Your task to perform on an android device: Go to network settings Image 0: 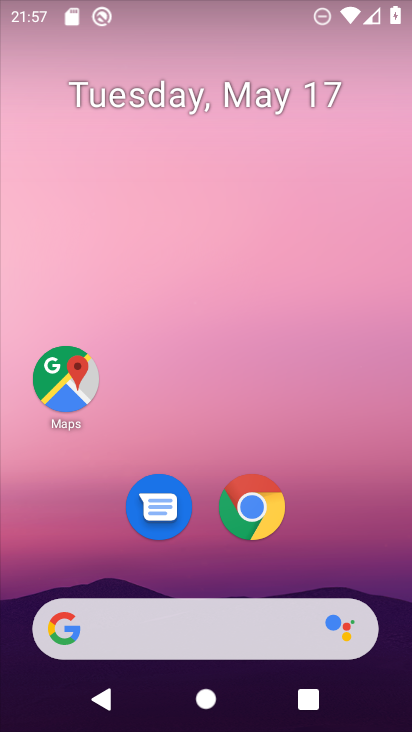
Step 0: drag from (356, 588) to (406, 467)
Your task to perform on an android device: Go to network settings Image 1: 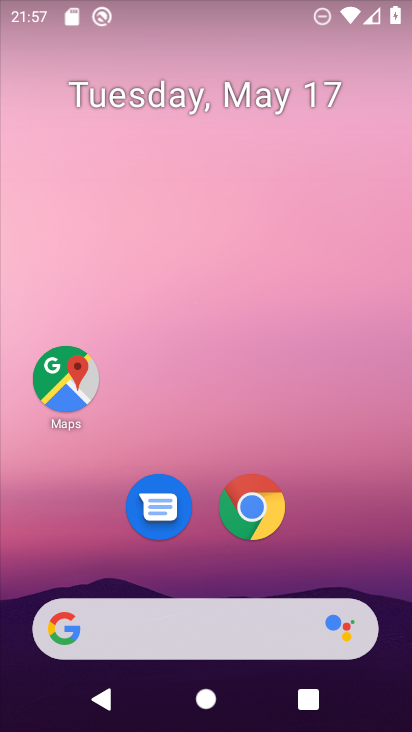
Step 1: drag from (368, 576) to (399, 0)
Your task to perform on an android device: Go to network settings Image 2: 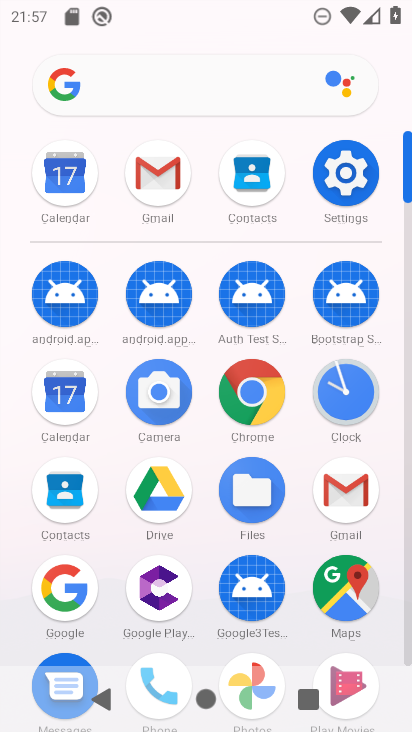
Step 2: click (348, 170)
Your task to perform on an android device: Go to network settings Image 3: 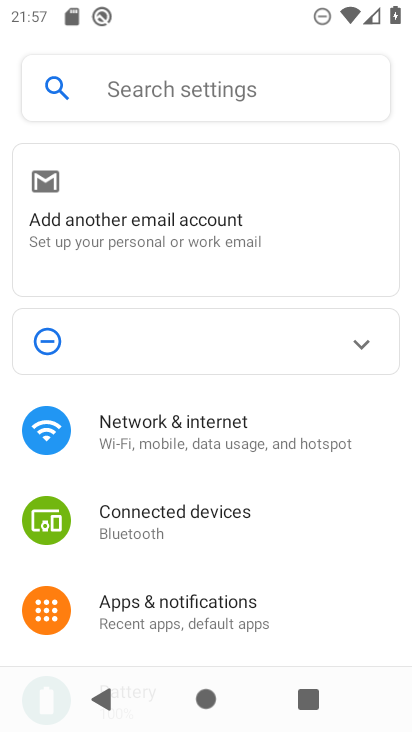
Step 3: click (155, 425)
Your task to perform on an android device: Go to network settings Image 4: 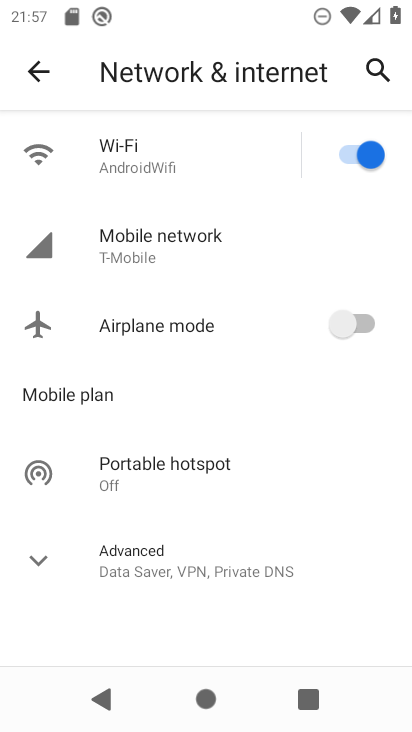
Step 4: click (147, 246)
Your task to perform on an android device: Go to network settings Image 5: 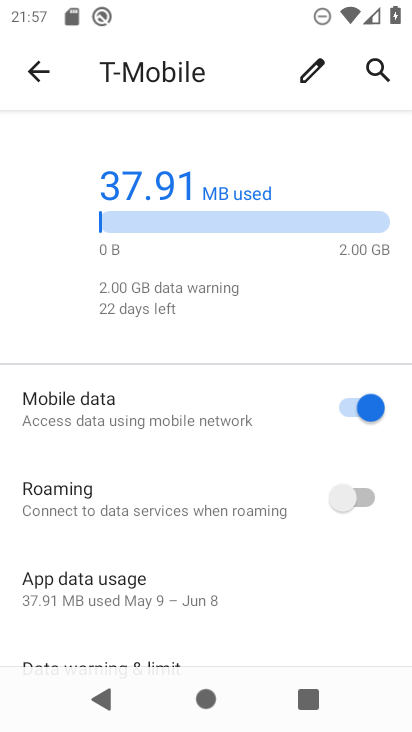
Step 5: drag from (113, 241) to (111, 98)
Your task to perform on an android device: Go to network settings Image 6: 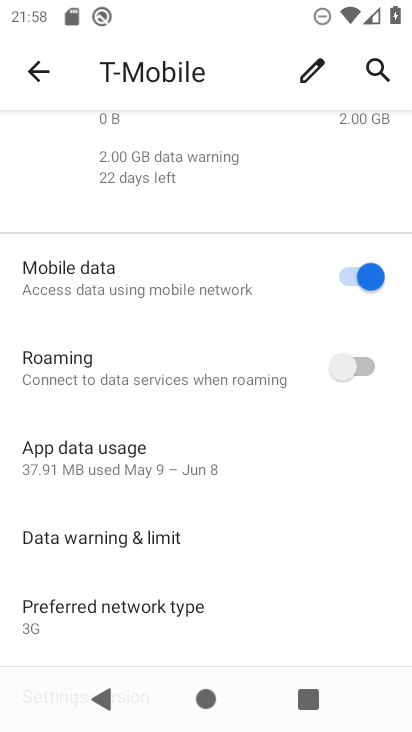
Step 6: drag from (62, 423) to (79, 151)
Your task to perform on an android device: Go to network settings Image 7: 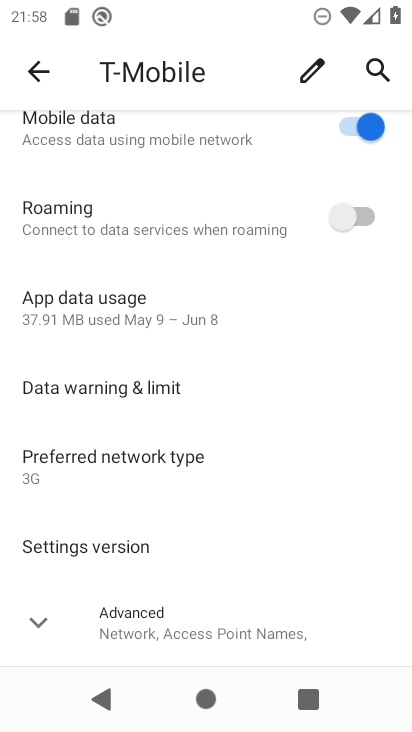
Step 7: click (35, 637)
Your task to perform on an android device: Go to network settings Image 8: 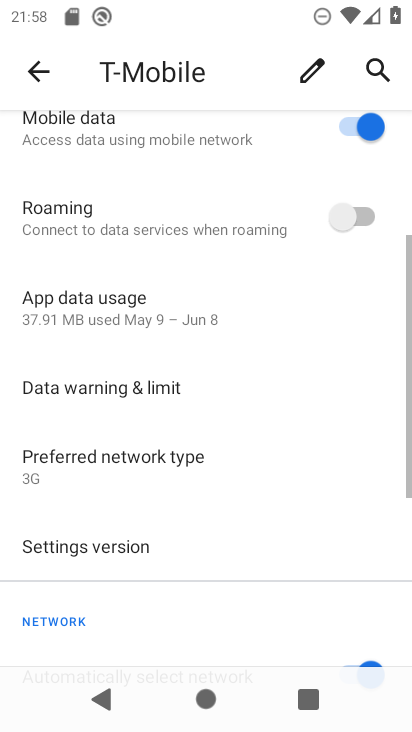
Step 8: task complete